Your task to perform on an android device: set the stopwatch Image 0: 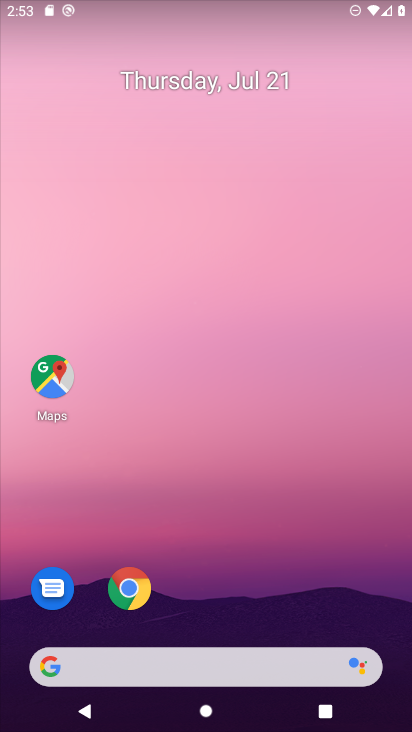
Step 0: drag from (201, 405) to (166, 0)
Your task to perform on an android device: set the stopwatch Image 1: 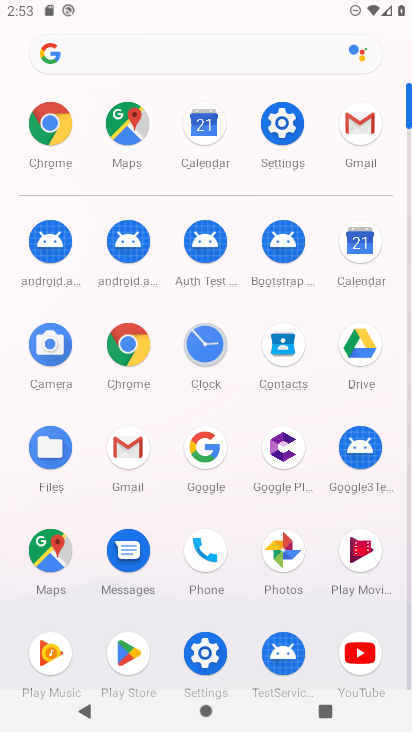
Step 1: click (203, 349)
Your task to perform on an android device: set the stopwatch Image 2: 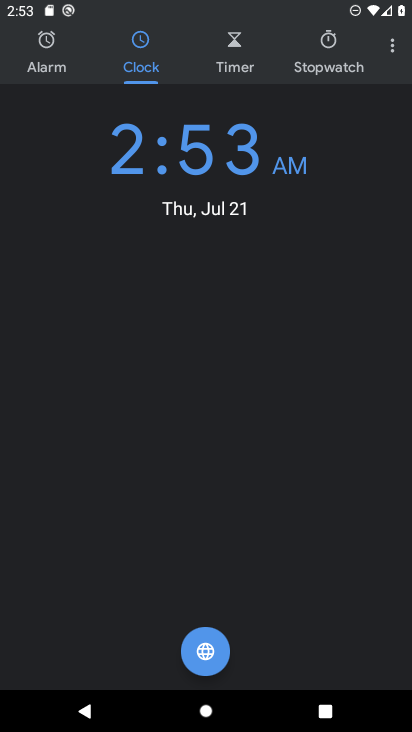
Step 2: click (311, 57)
Your task to perform on an android device: set the stopwatch Image 3: 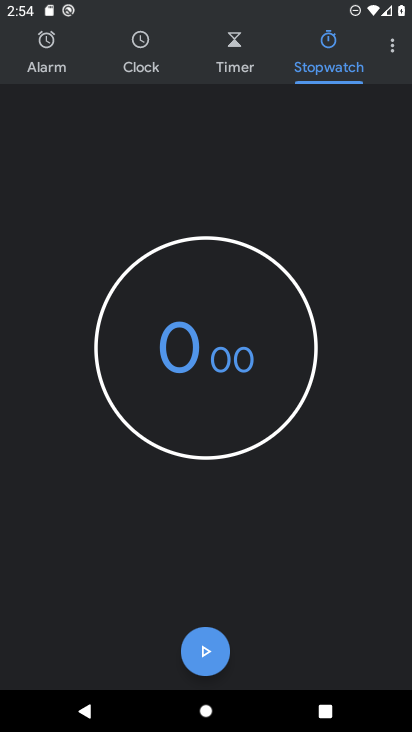
Step 3: click (221, 663)
Your task to perform on an android device: set the stopwatch Image 4: 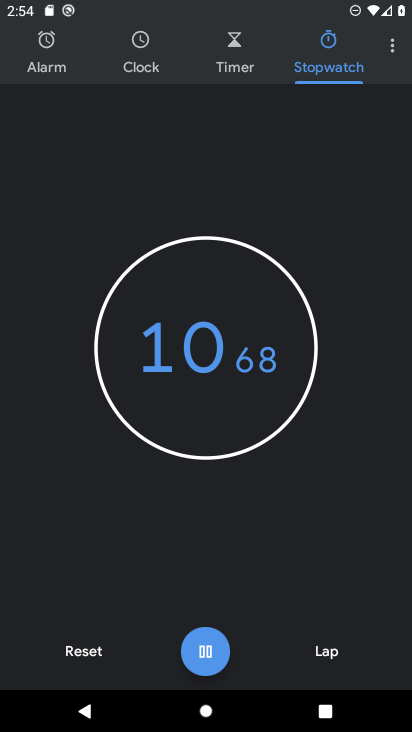
Step 4: task complete